Your task to perform on an android device: Go to CNN.com Image 0: 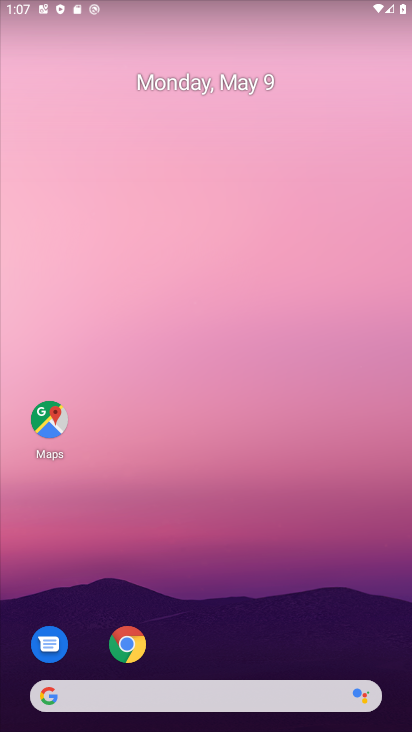
Step 0: drag from (228, 584) to (201, 8)
Your task to perform on an android device: Go to CNN.com Image 1: 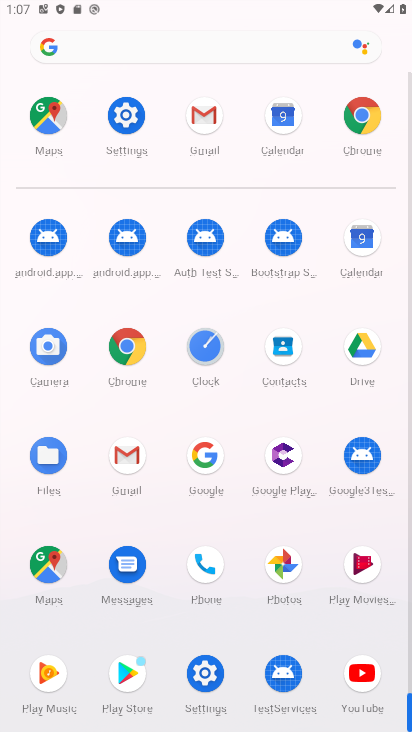
Step 1: click (359, 151)
Your task to perform on an android device: Go to CNN.com Image 2: 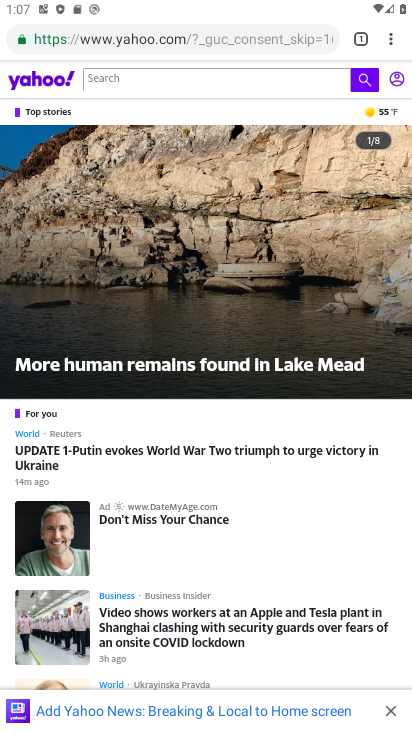
Step 2: click (155, 50)
Your task to perform on an android device: Go to CNN.com Image 3: 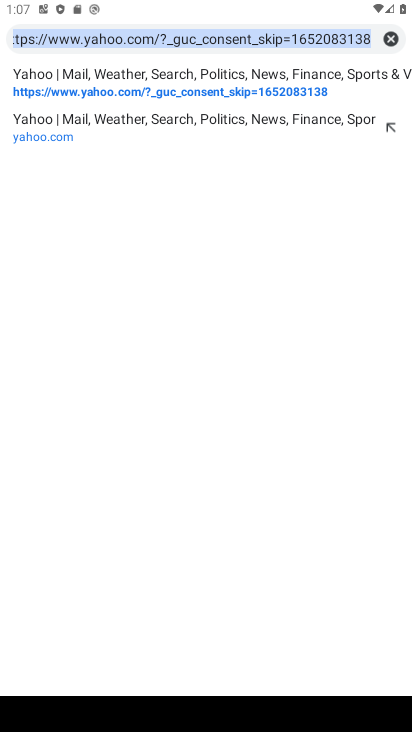
Step 3: type "www.cnn.com"
Your task to perform on an android device: Go to CNN.com Image 4: 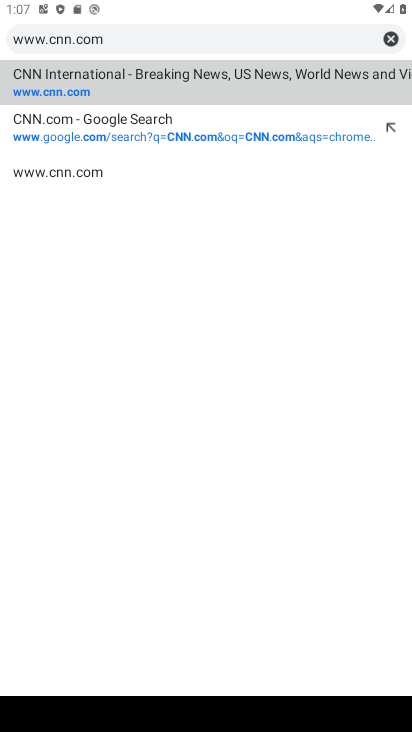
Step 4: click (95, 89)
Your task to perform on an android device: Go to CNN.com Image 5: 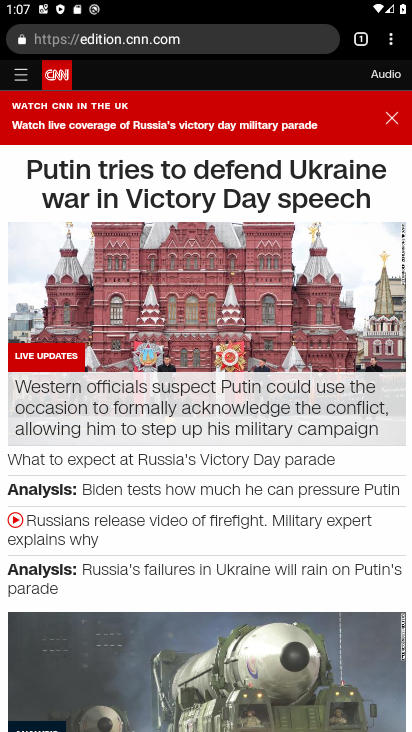
Step 5: task complete